Your task to perform on an android device: open app "Google Keep" Image 0: 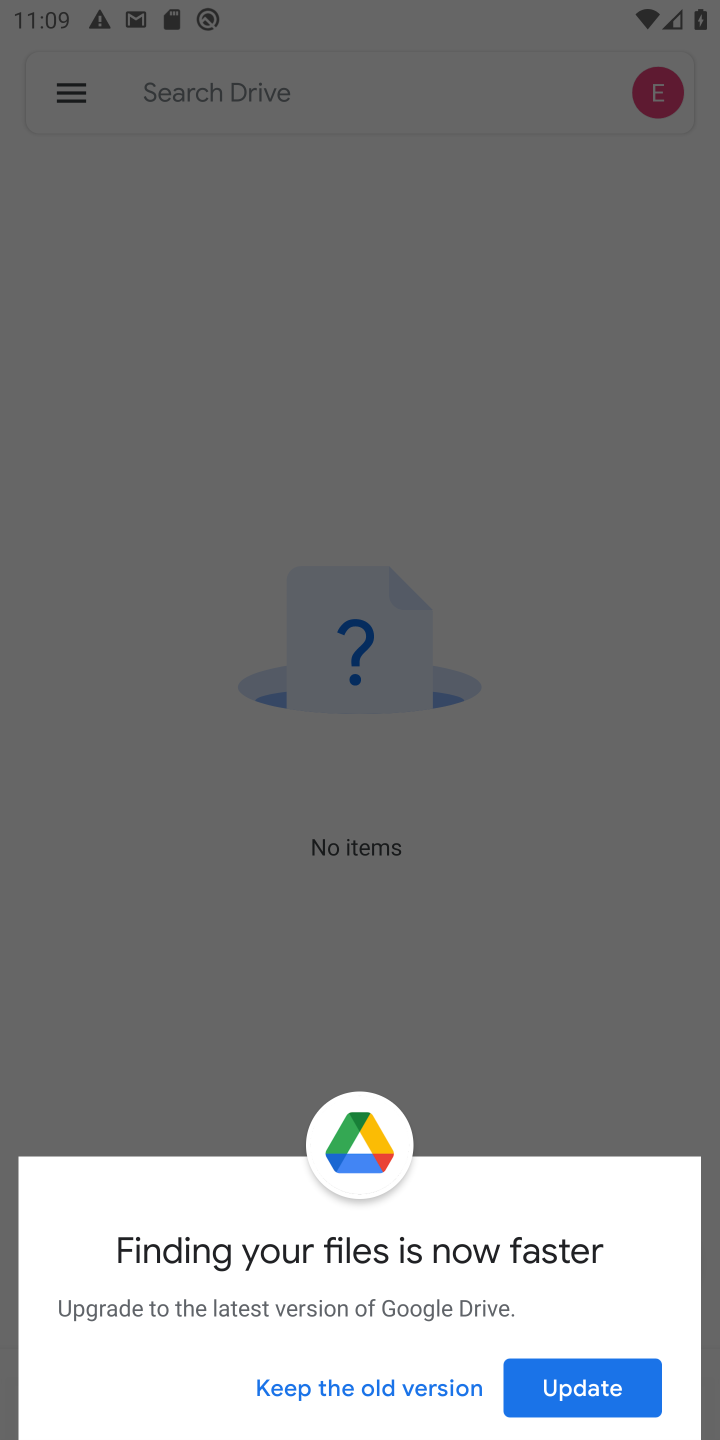
Step 0: press home button
Your task to perform on an android device: open app "Google Keep" Image 1: 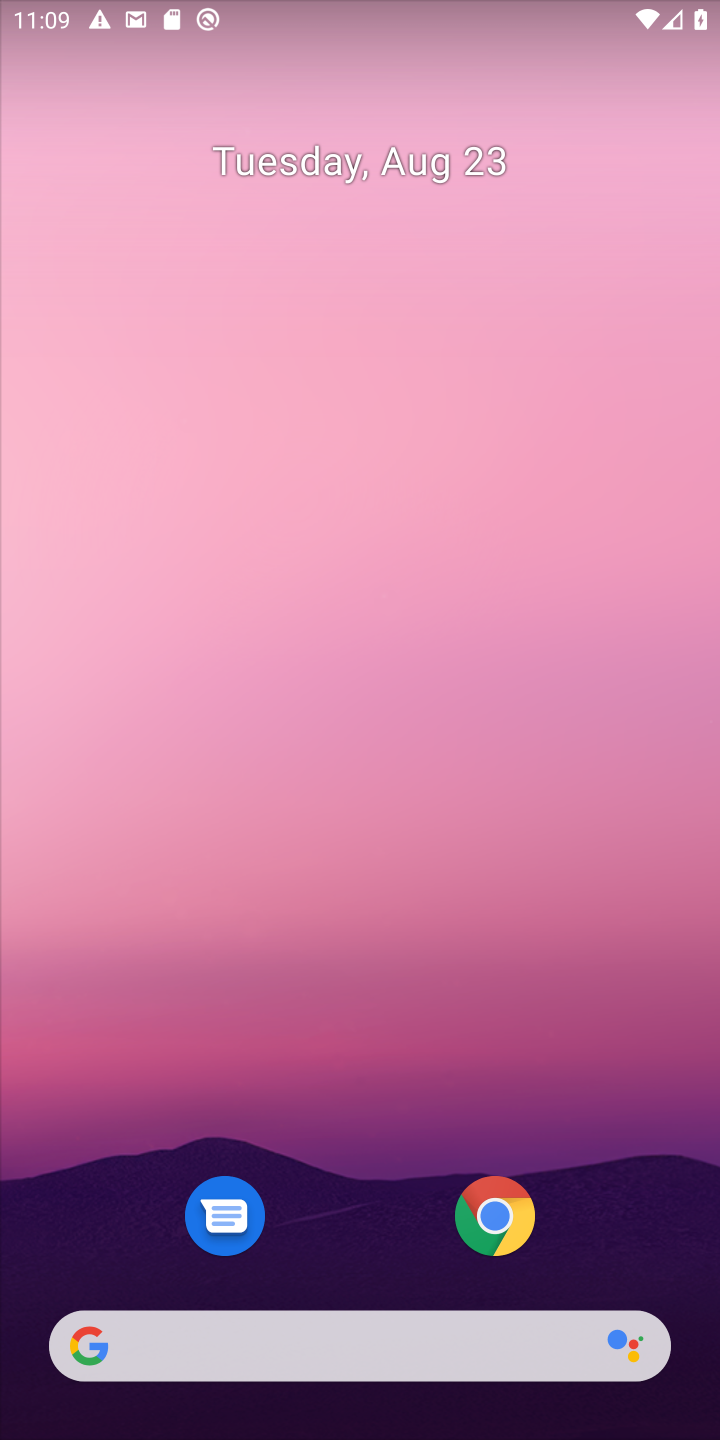
Step 1: drag from (329, 1326) to (314, 237)
Your task to perform on an android device: open app "Google Keep" Image 2: 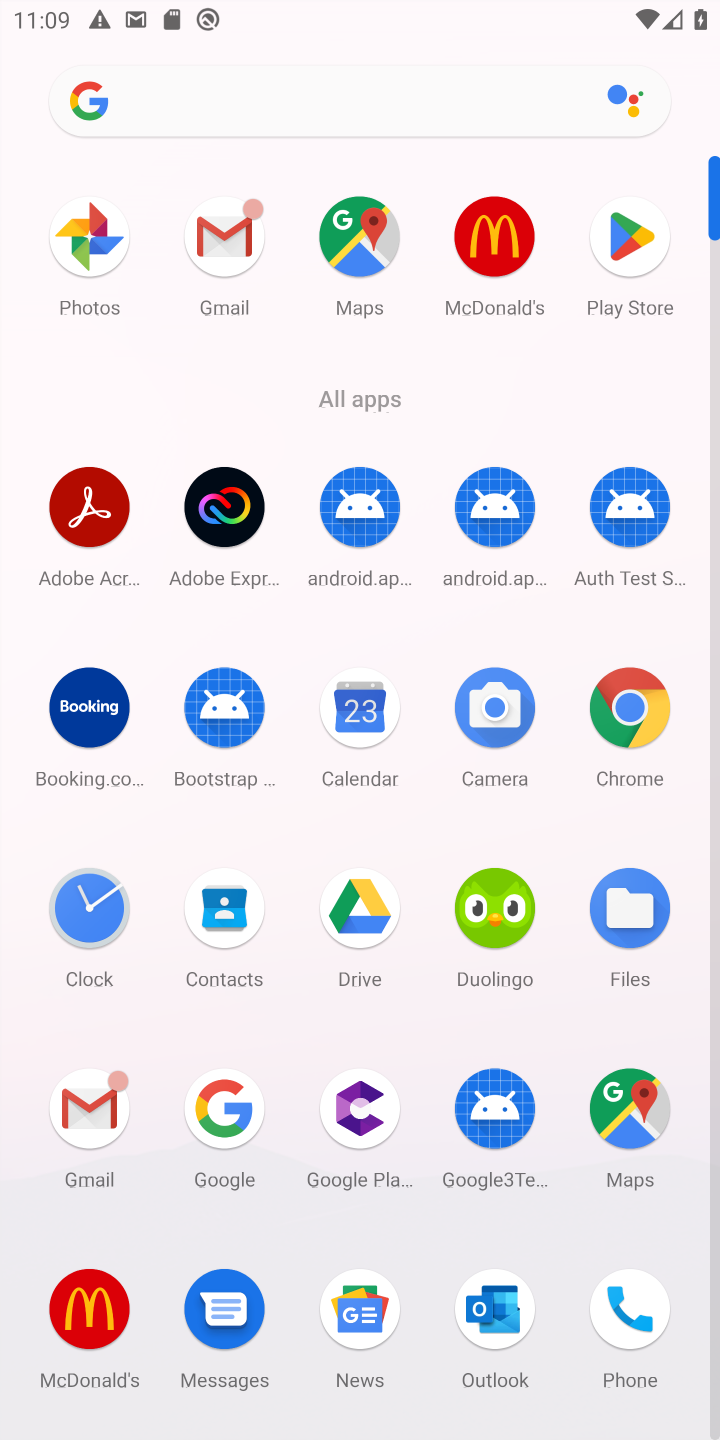
Step 2: click (621, 248)
Your task to perform on an android device: open app "Google Keep" Image 3: 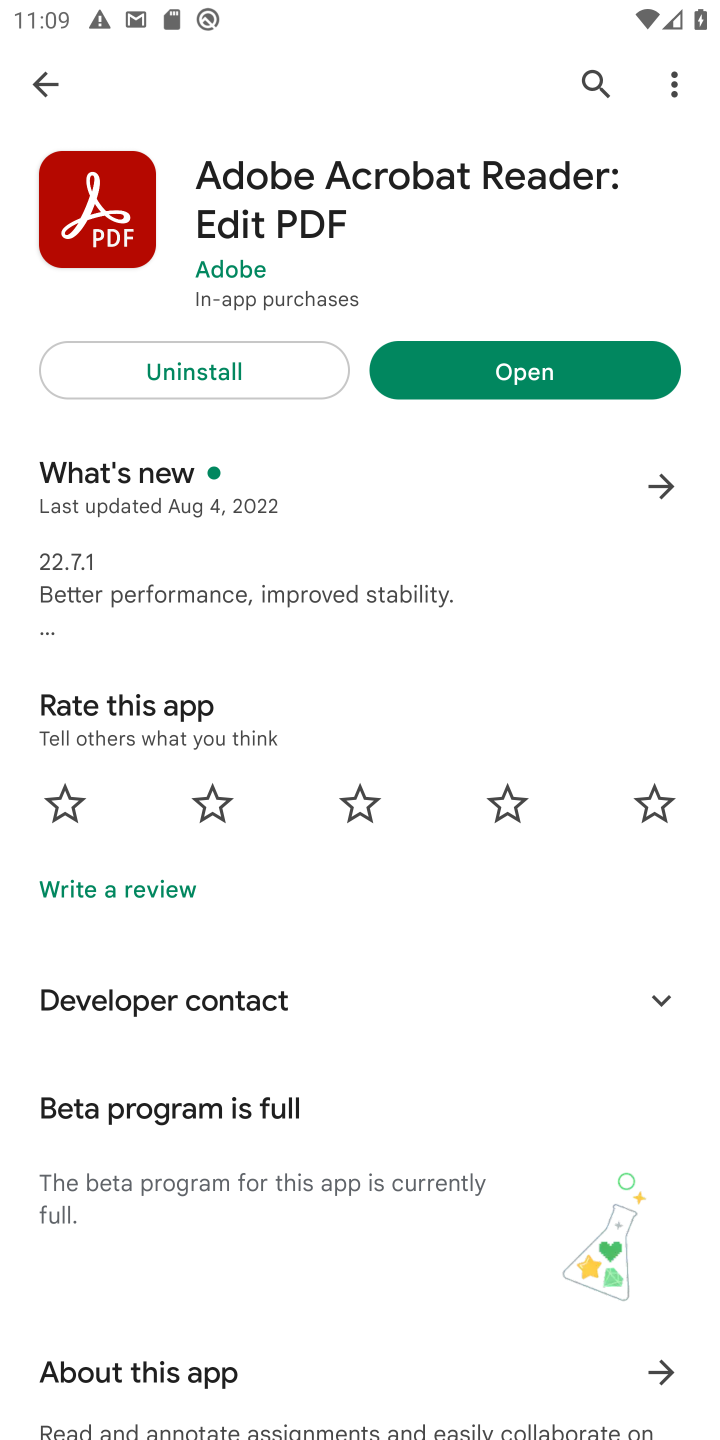
Step 3: press back button
Your task to perform on an android device: open app "Google Keep" Image 4: 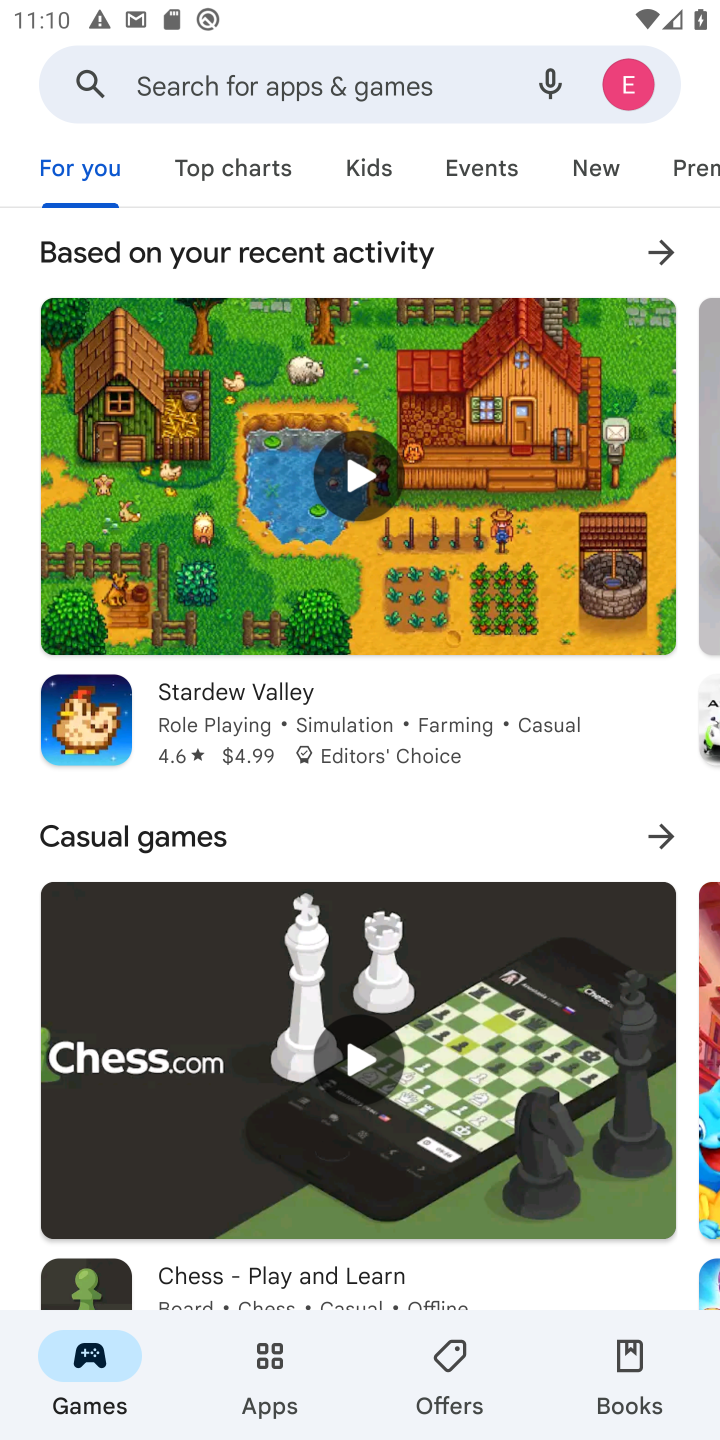
Step 4: click (416, 64)
Your task to perform on an android device: open app "Google Keep" Image 5: 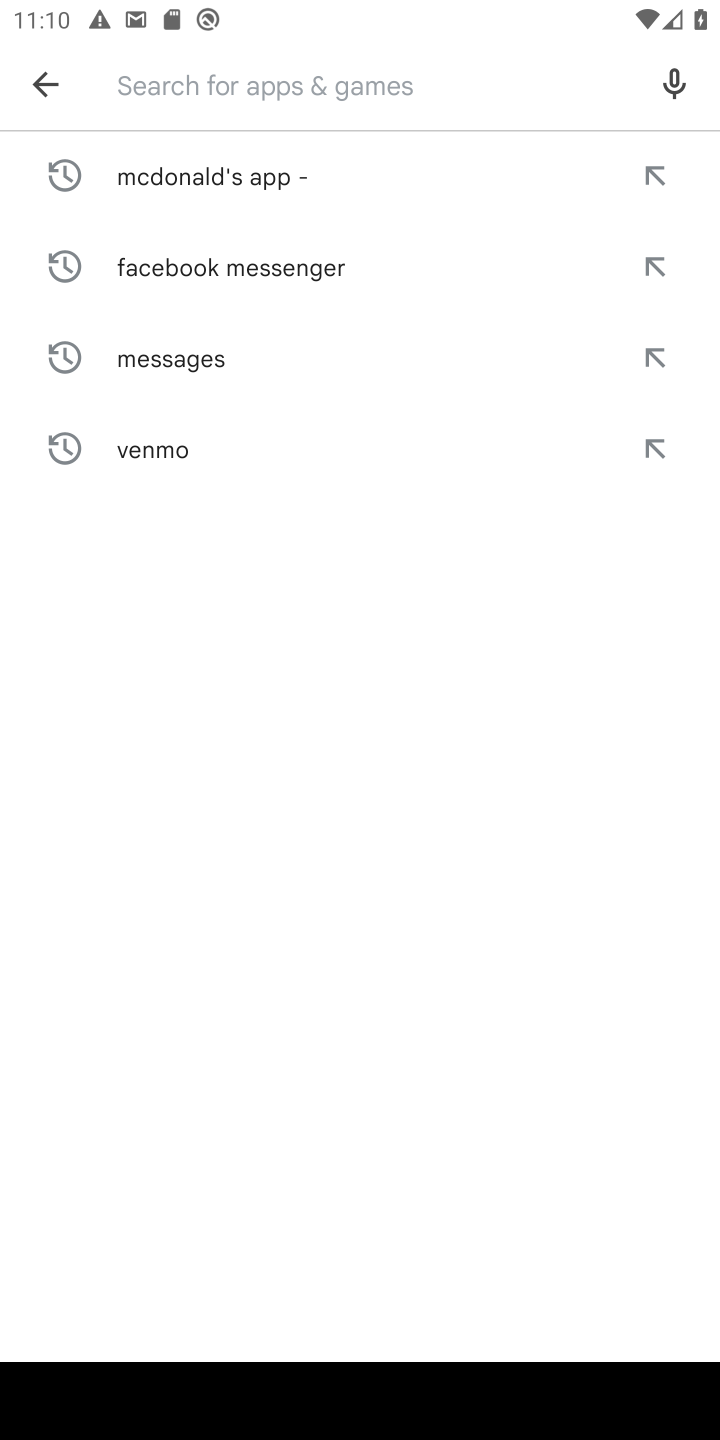
Step 5: type "Google Keep"
Your task to perform on an android device: open app "Google Keep" Image 6: 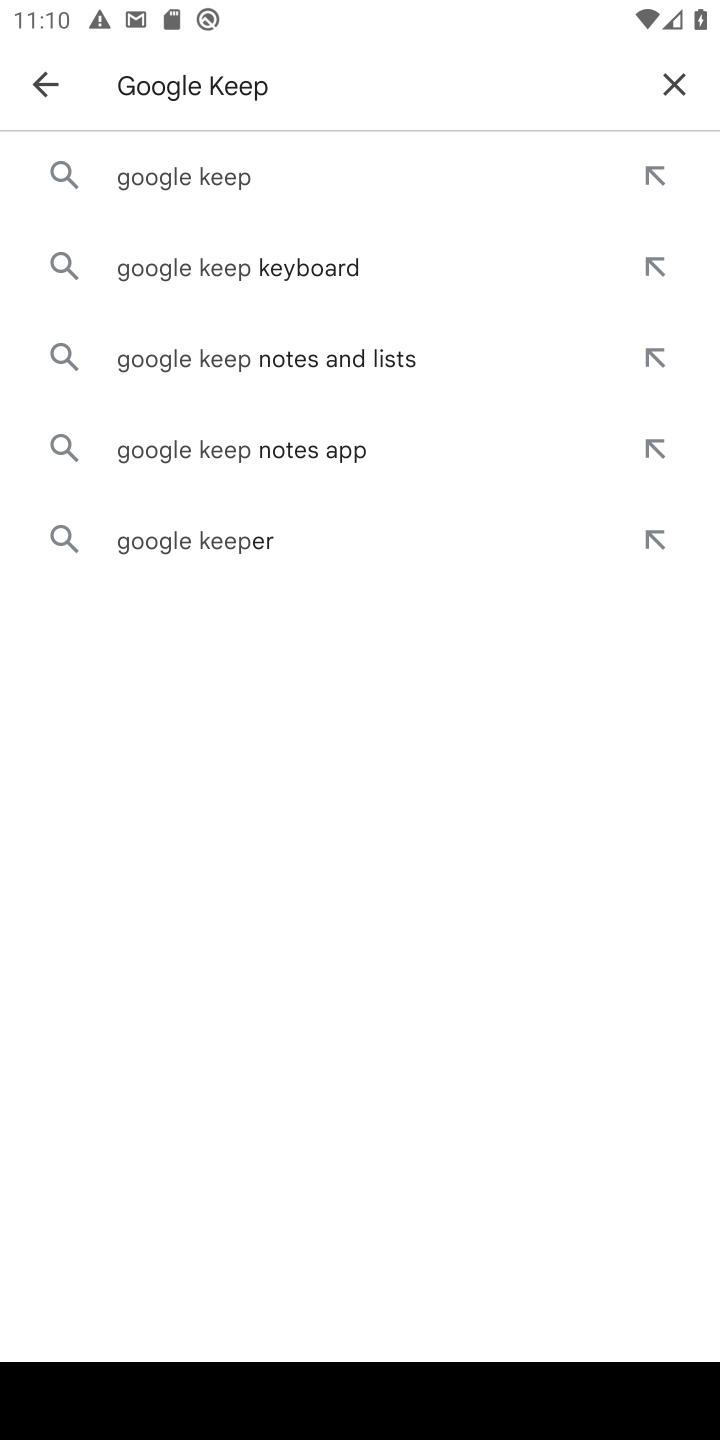
Step 6: click (232, 187)
Your task to perform on an android device: open app "Google Keep" Image 7: 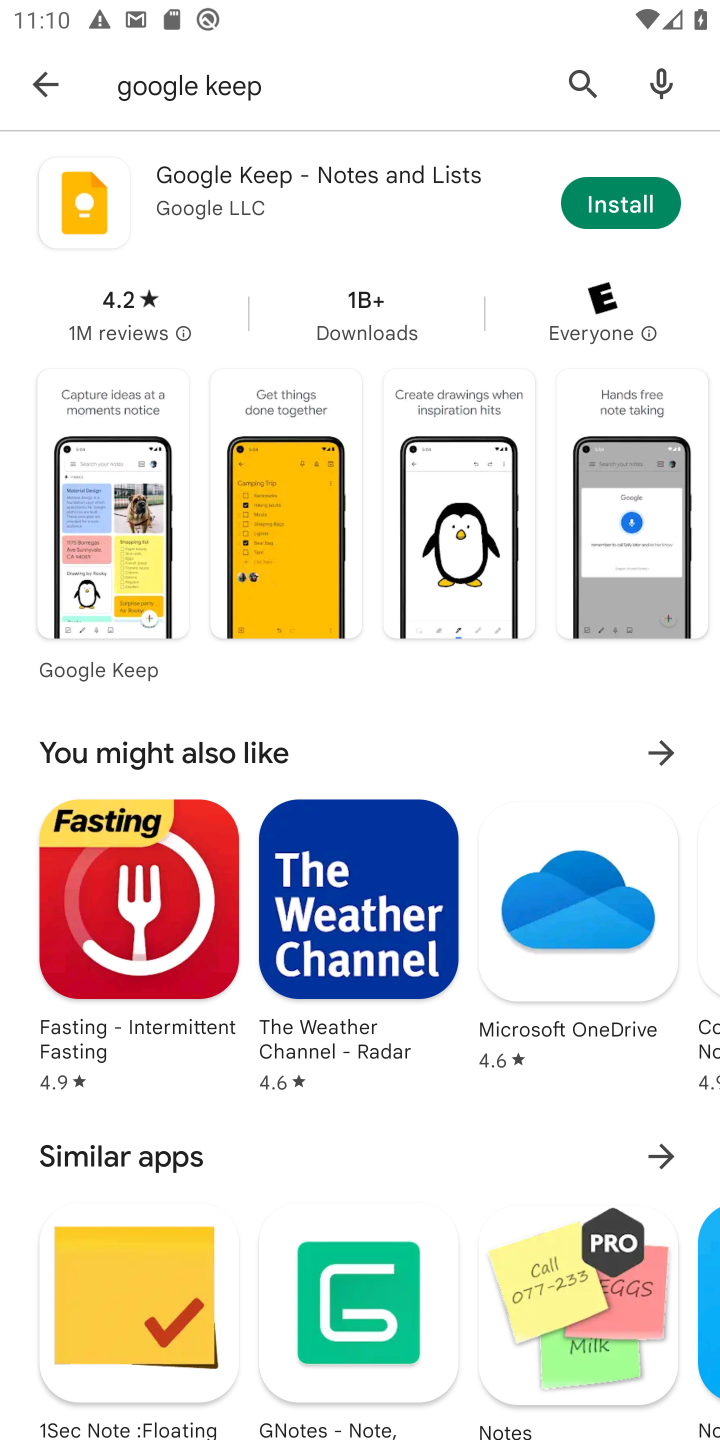
Step 7: task complete